Your task to perform on an android device: set the timer Image 0: 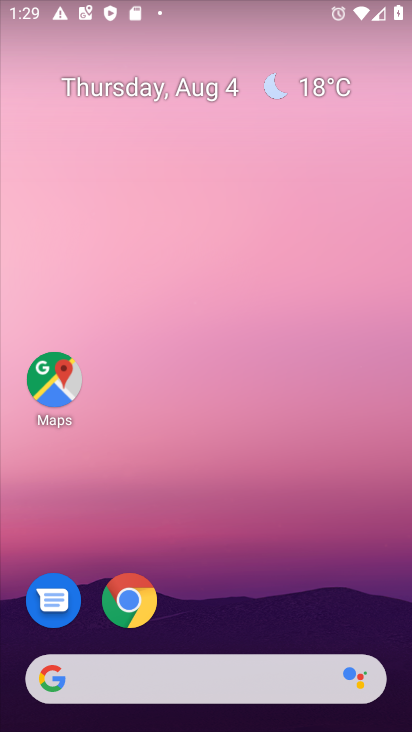
Step 0: press home button
Your task to perform on an android device: set the timer Image 1: 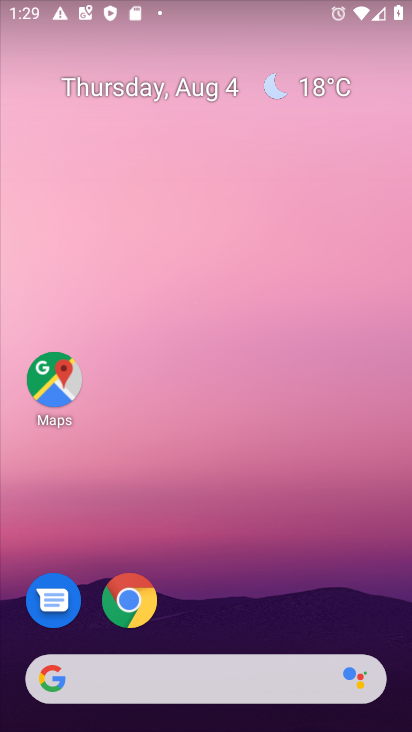
Step 1: drag from (191, 667) to (332, 76)
Your task to perform on an android device: set the timer Image 2: 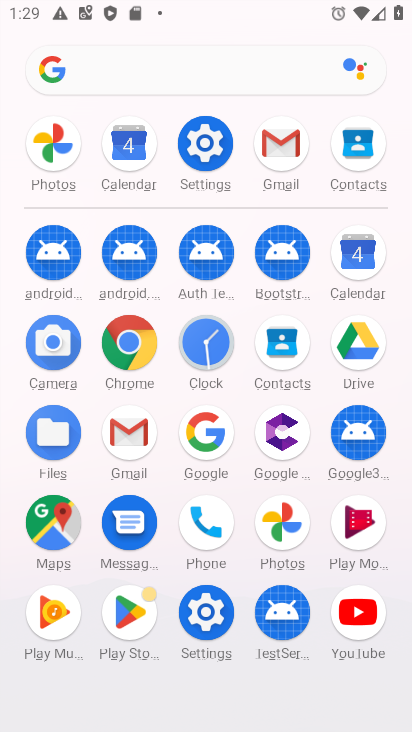
Step 2: click (206, 345)
Your task to perform on an android device: set the timer Image 3: 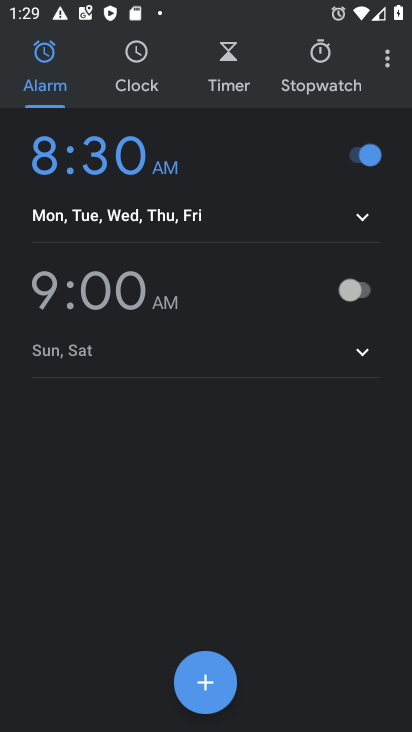
Step 3: click (361, 289)
Your task to perform on an android device: set the timer Image 4: 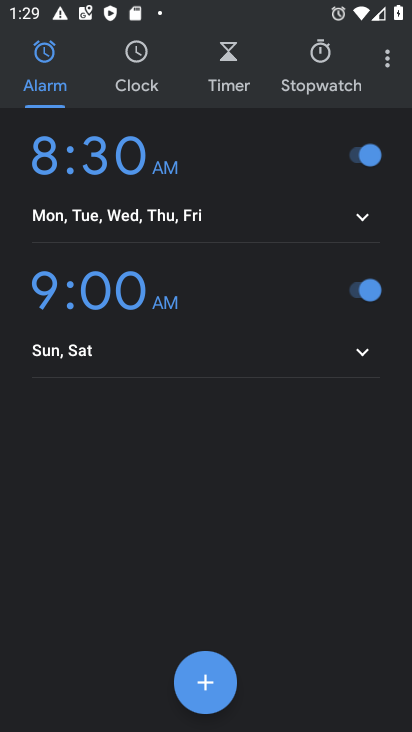
Step 4: task complete